Your task to perform on an android device: Go to Yahoo.com Image 0: 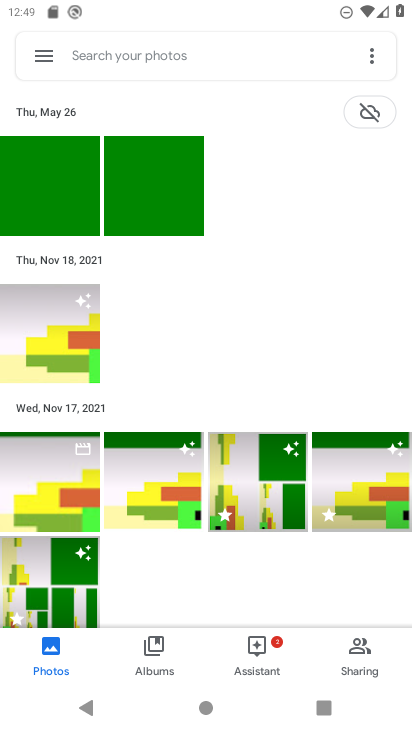
Step 0: press home button
Your task to perform on an android device: Go to Yahoo.com Image 1: 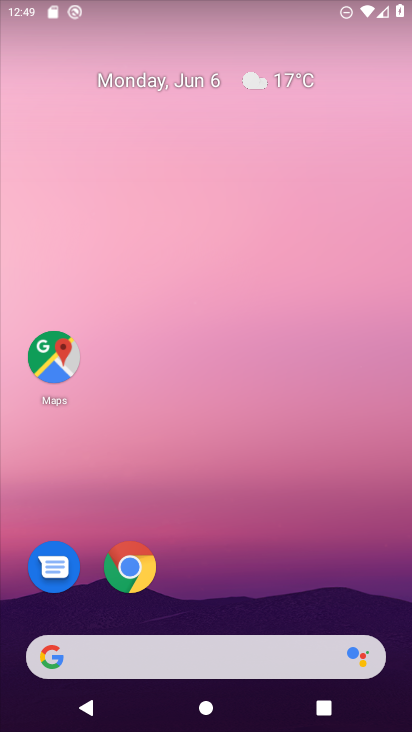
Step 1: click (128, 585)
Your task to perform on an android device: Go to Yahoo.com Image 2: 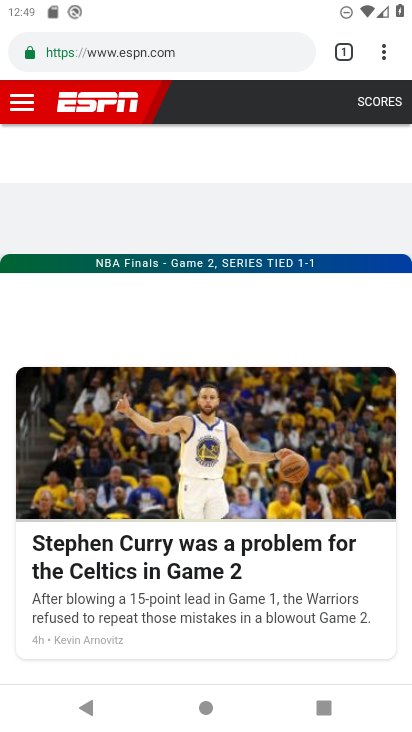
Step 2: click (386, 57)
Your task to perform on an android device: Go to Yahoo.com Image 3: 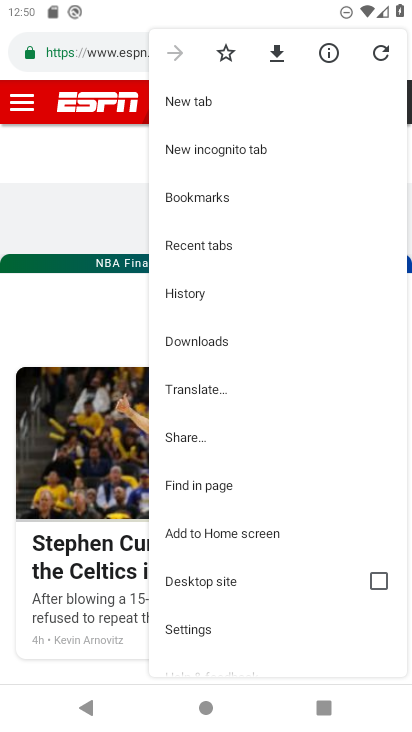
Step 3: click (181, 101)
Your task to perform on an android device: Go to Yahoo.com Image 4: 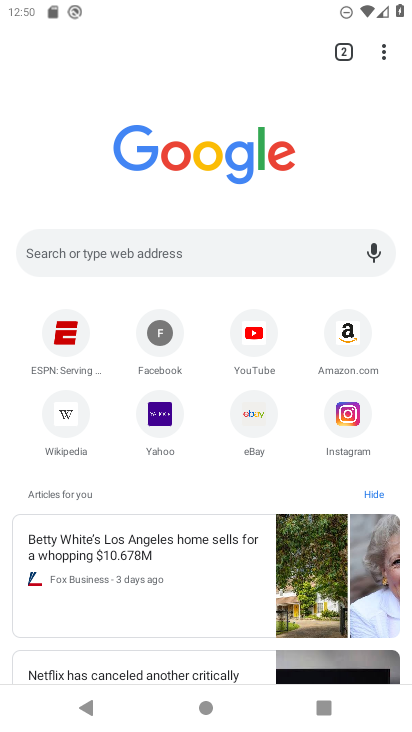
Step 4: click (151, 415)
Your task to perform on an android device: Go to Yahoo.com Image 5: 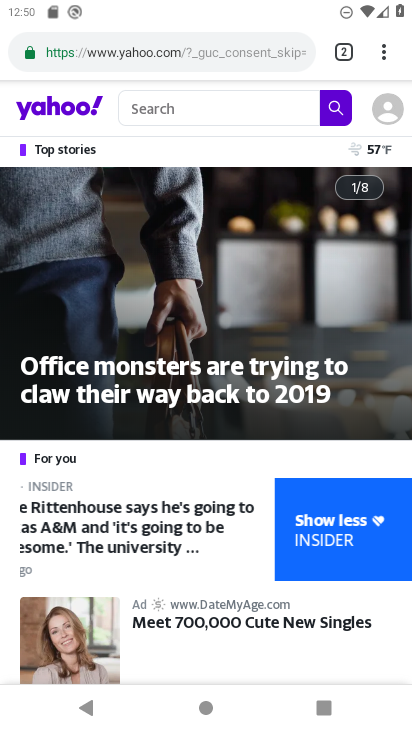
Step 5: task complete